Your task to perform on an android device: turn off airplane mode Image 0: 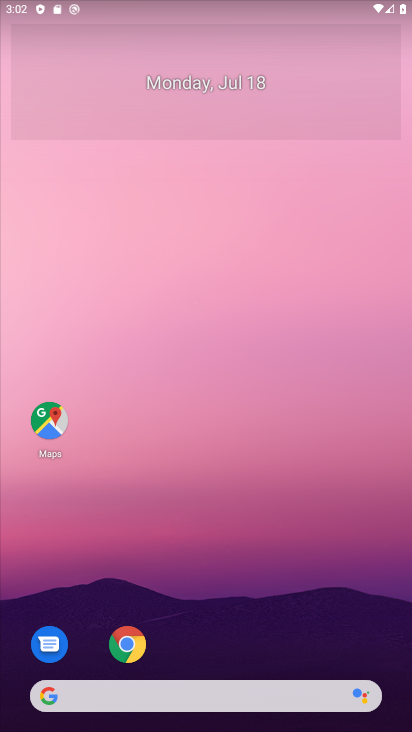
Step 0: drag from (201, 0) to (201, 562)
Your task to perform on an android device: turn off airplane mode Image 1: 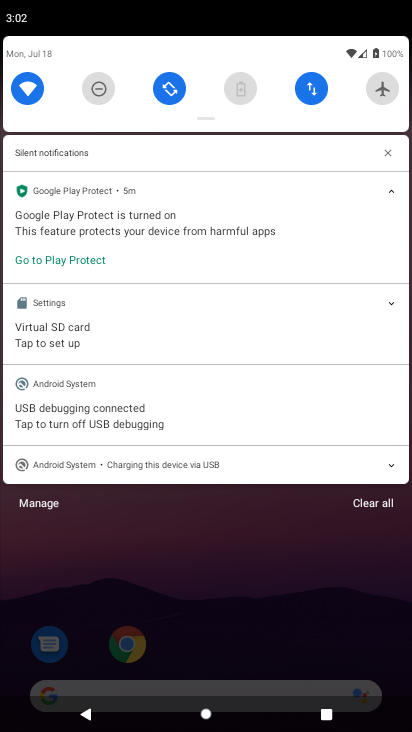
Step 1: task complete